Your task to perform on an android device: make emails show in primary in the gmail app Image 0: 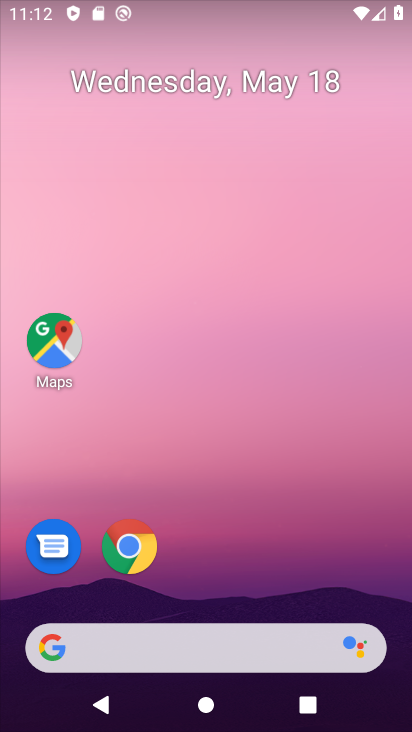
Step 0: drag from (251, 572) to (322, 111)
Your task to perform on an android device: make emails show in primary in the gmail app Image 1: 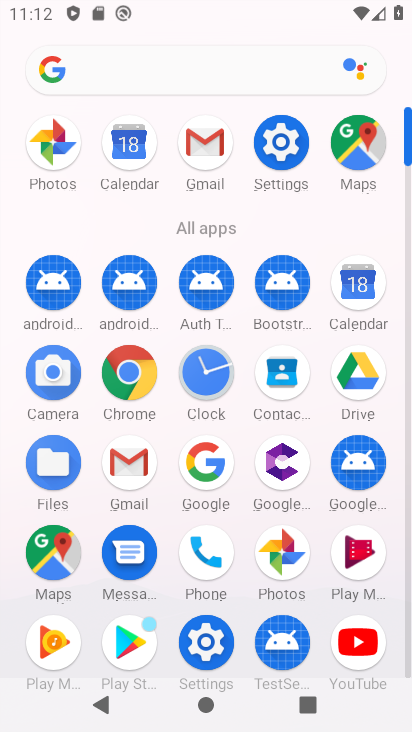
Step 1: click (196, 140)
Your task to perform on an android device: make emails show in primary in the gmail app Image 2: 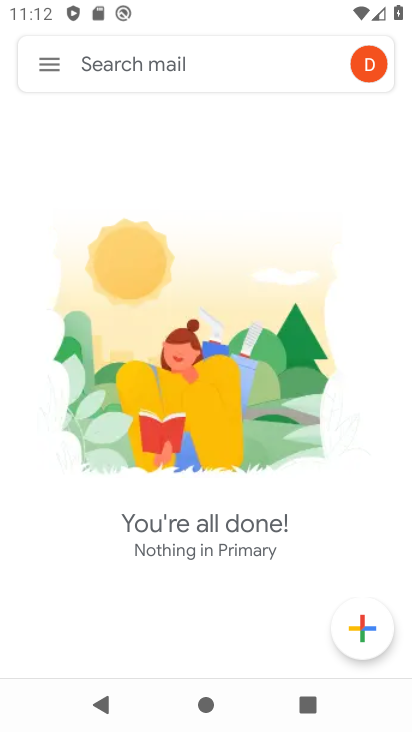
Step 2: click (44, 57)
Your task to perform on an android device: make emails show in primary in the gmail app Image 3: 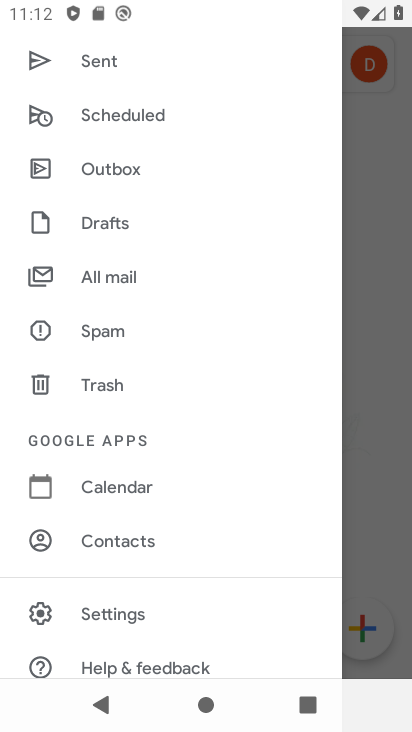
Step 3: click (147, 610)
Your task to perform on an android device: make emails show in primary in the gmail app Image 4: 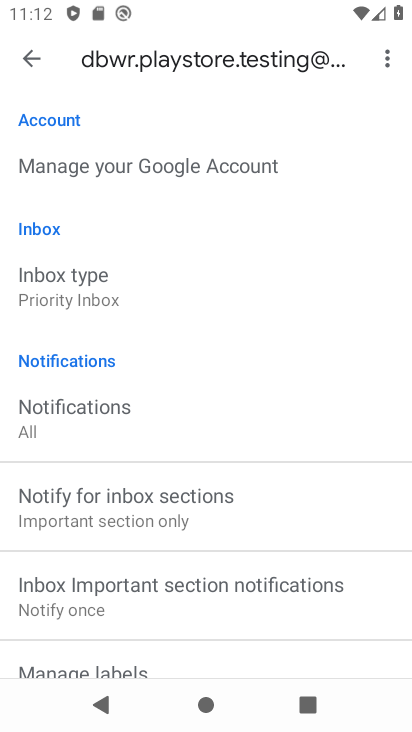
Step 4: click (99, 296)
Your task to perform on an android device: make emails show in primary in the gmail app Image 5: 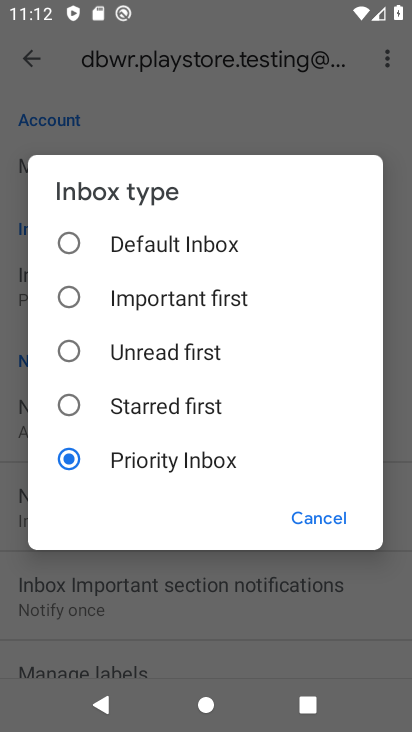
Step 5: click (74, 251)
Your task to perform on an android device: make emails show in primary in the gmail app Image 6: 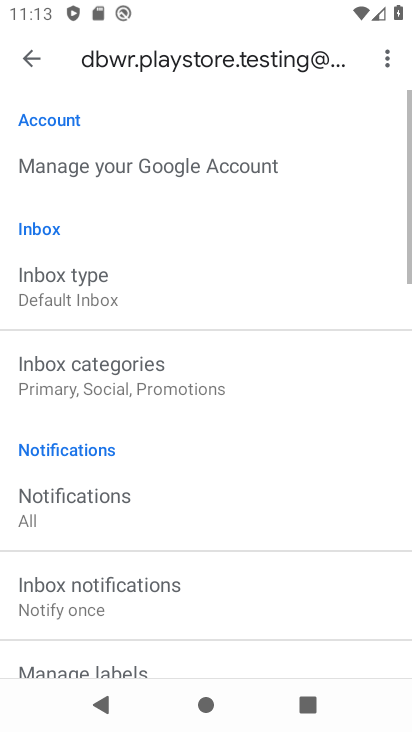
Step 6: click (110, 373)
Your task to perform on an android device: make emails show in primary in the gmail app Image 7: 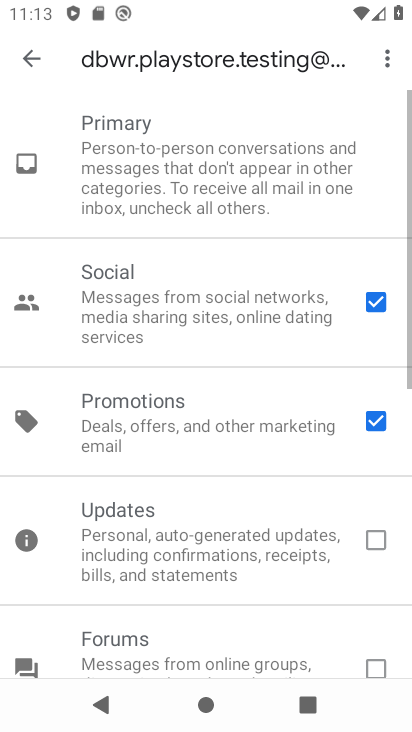
Step 7: click (373, 302)
Your task to perform on an android device: make emails show in primary in the gmail app Image 8: 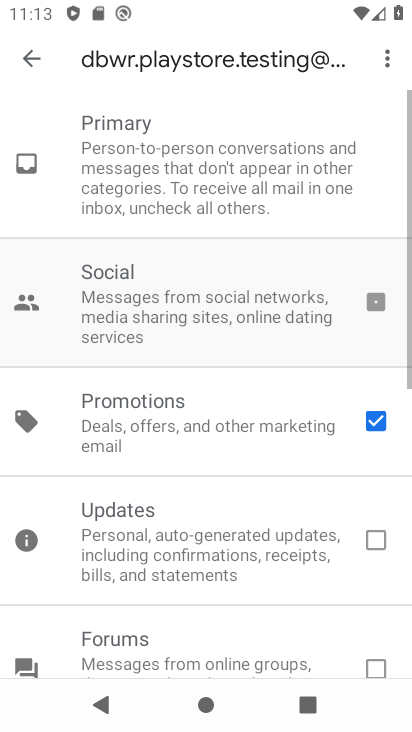
Step 8: click (382, 415)
Your task to perform on an android device: make emails show in primary in the gmail app Image 9: 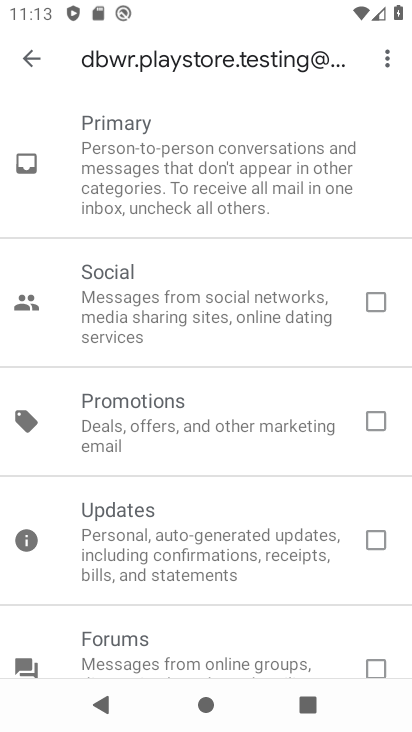
Step 9: task complete